Your task to perform on an android device: turn on sleep mode Image 0: 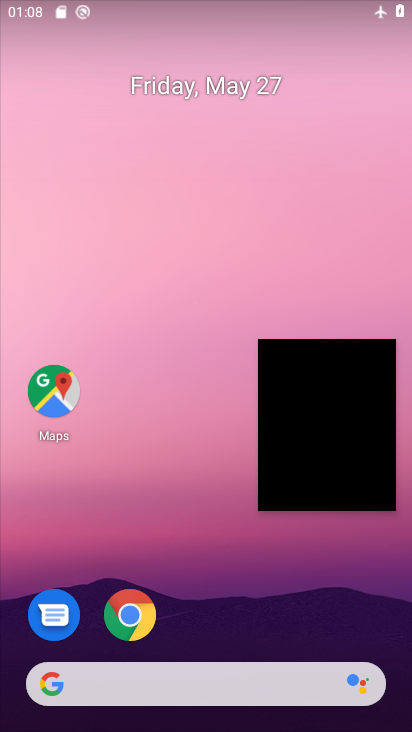
Step 0: drag from (356, 630) to (395, 275)
Your task to perform on an android device: turn on sleep mode Image 1: 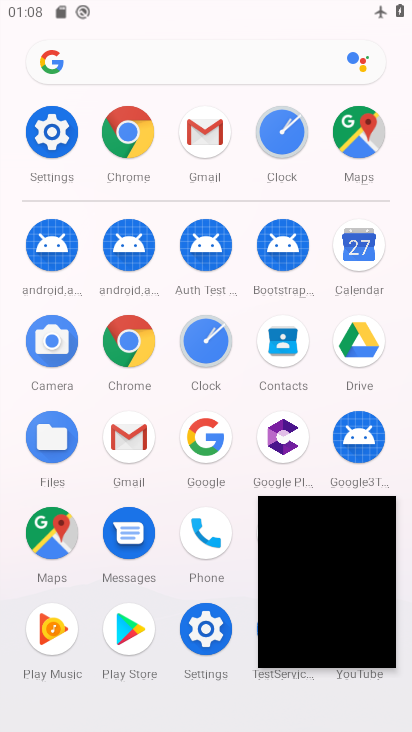
Step 1: click (196, 615)
Your task to perform on an android device: turn on sleep mode Image 2: 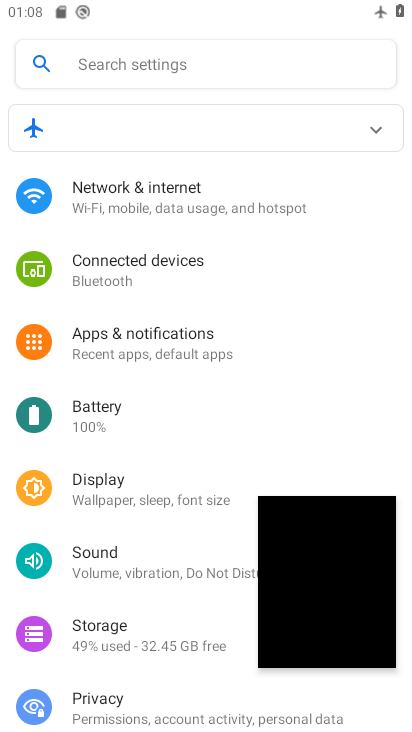
Step 2: drag from (210, 682) to (217, 630)
Your task to perform on an android device: turn on sleep mode Image 3: 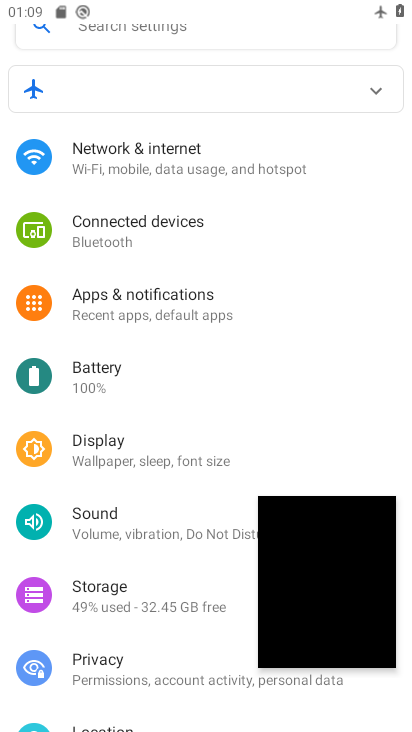
Step 3: drag from (207, 661) to (208, 575)
Your task to perform on an android device: turn on sleep mode Image 4: 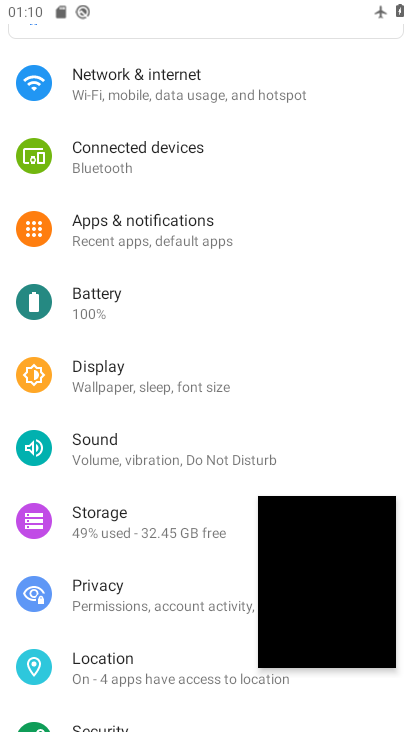
Step 4: click (171, 374)
Your task to perform on an android device: turn on sleep mode Image 5: 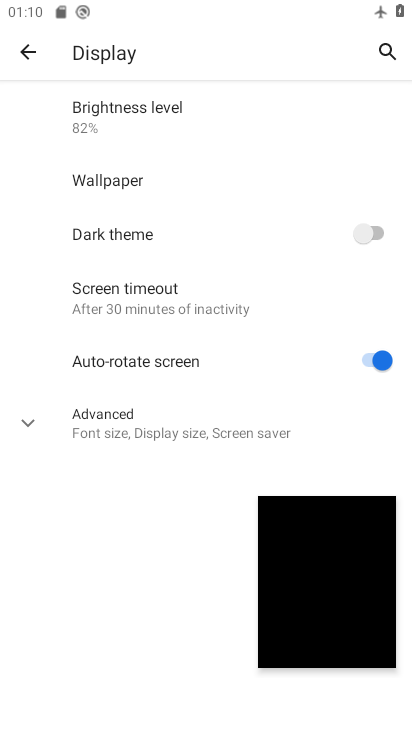
Step 5: click (189, 431)
Your task to perform on an android device: turn on sleep mode Image 6: 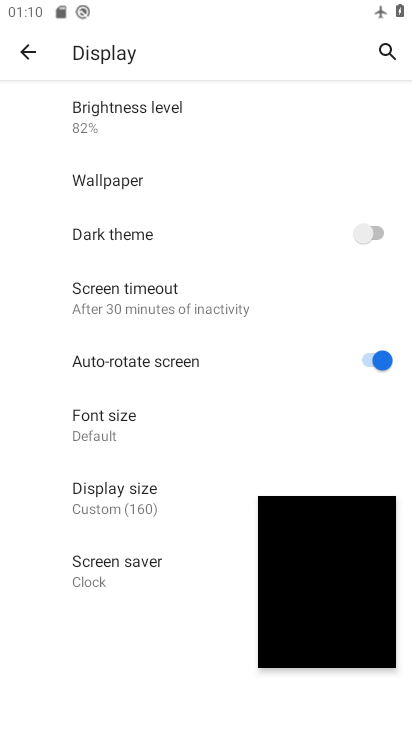
Step 6: task complete